Your task to perform on an android device: turn smart compose on in the gmail app Image 0: 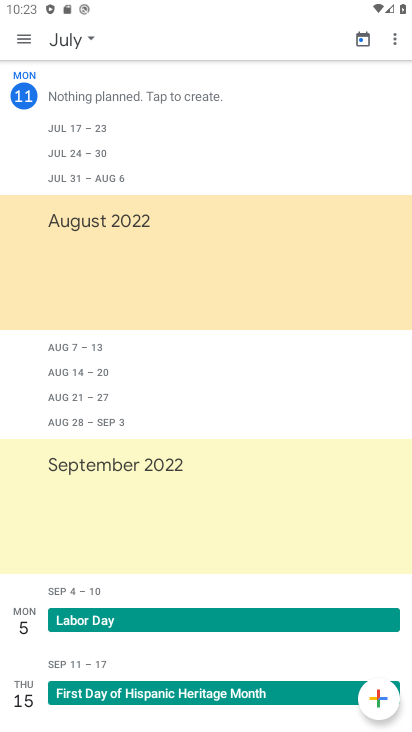
Step 0: press home button
Your task to perform on an android device: turn smart compose on in the gmail app Image 1: 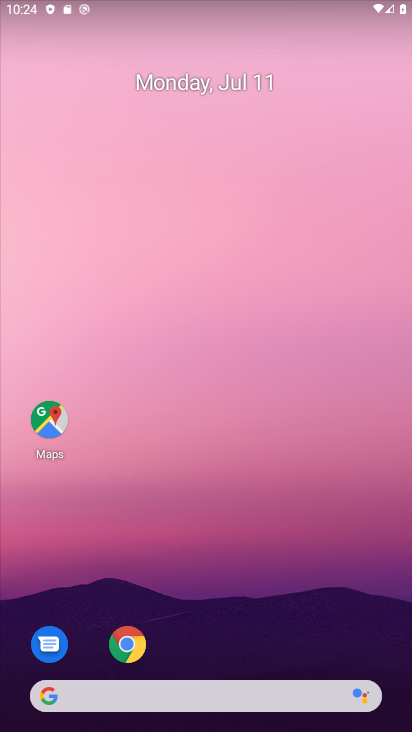
Step 1: drag from (259, 648) to (275, 146)
Your task to perform on an android device: turn smart compose on in the gmail app Image 2: 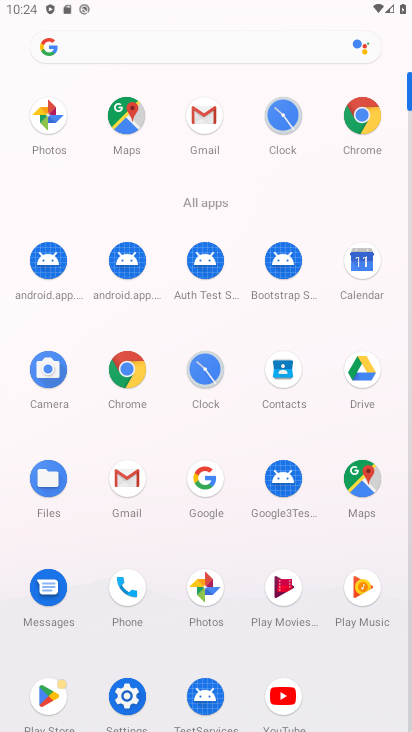
Step 2: click (212, 118)
Your task to perform on an android device: turn smart compose on in the gmail app Image 3: 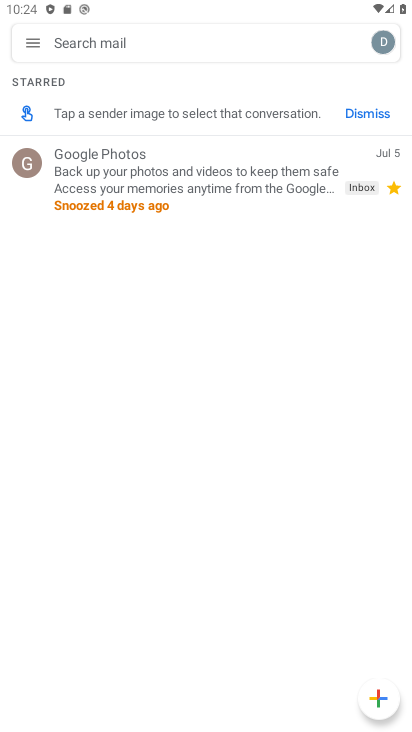
Step 3: click (28, 47)
Your task to perform on an android device: turn smart compose on in the gmail app Image 4: 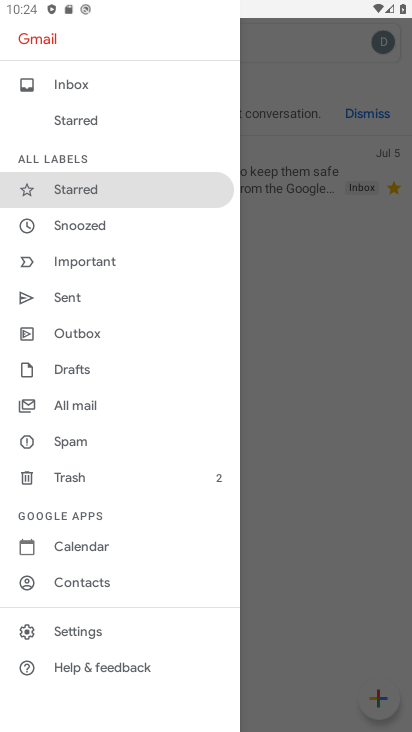
Step 4: click (130, 628)
Your task to perform on an android device: turn smart compose on in the gmail app Image 5: 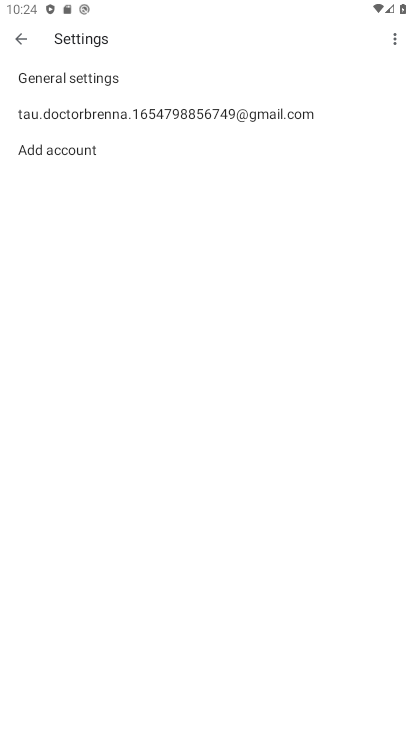
Step 5: click (262, 117)
Your task to perform on an android device: turn smart compose on in the gmail app Image 6: 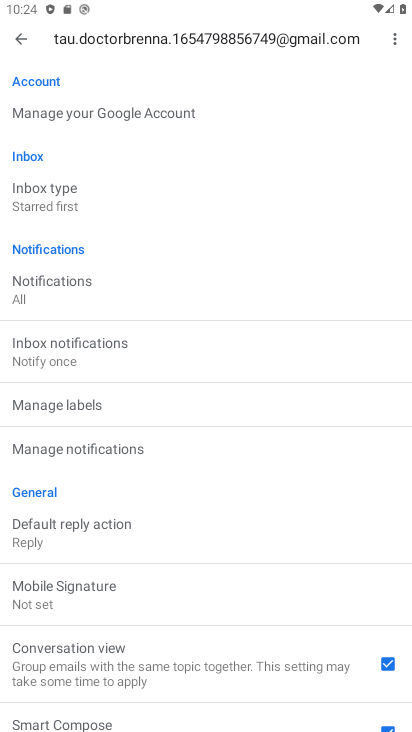
Step 6: task complete